Your task to perform on an android device: turn off smart reply in the gmail app Image 0: 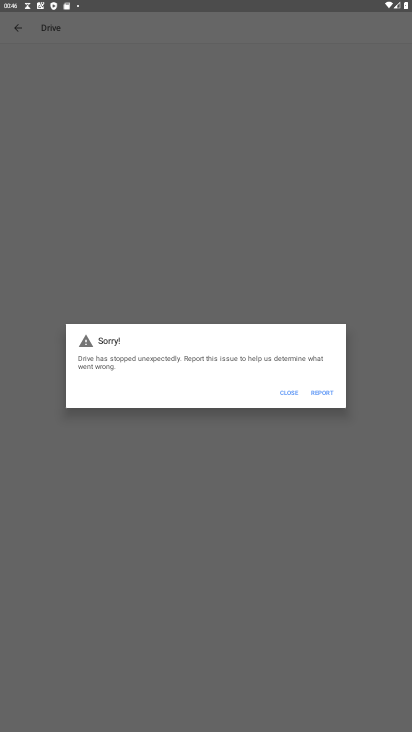
Step 0: press home button
Your task to perform on an android device: turn off smart reply in the gmail app Image 1: 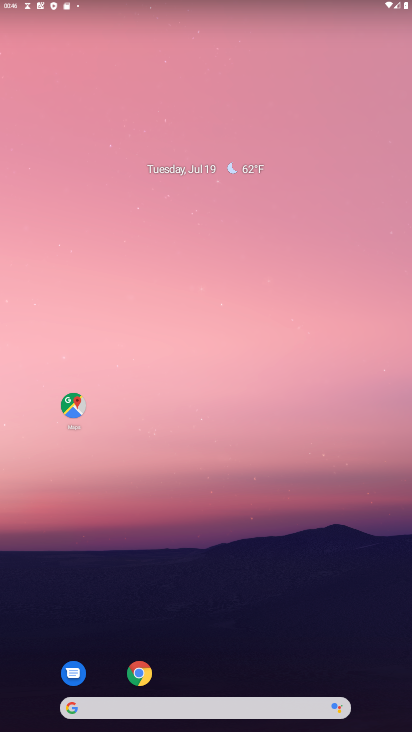
Step 1: drag from (272, 584) to (229, 171)
Your task to perform on an android device: turn off smart reply in the gmail app Image 2: 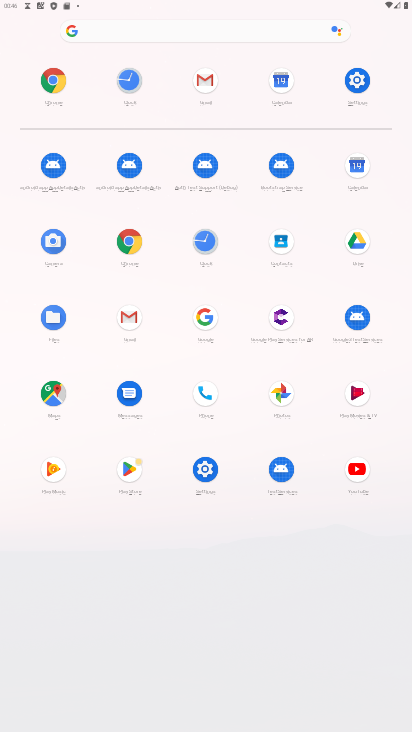
Step 2: click (209, 77)
Your task to perform on an android device: turn off smart reply in the gmail app Image 3: 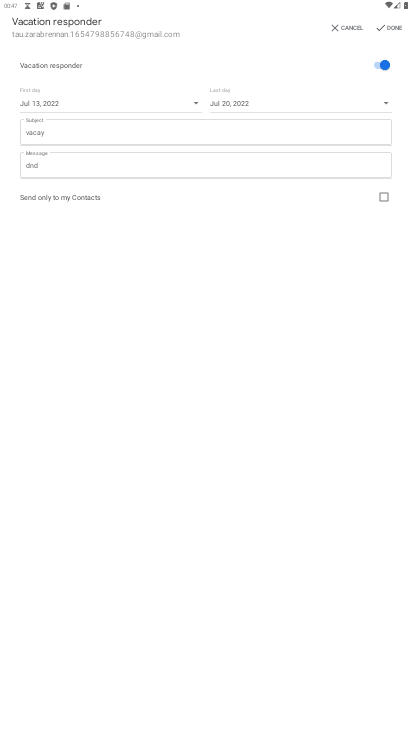
Step 3: click (338, 26)
Your task to perform on an android device: turn off smart reply in the gmail app Image 4: 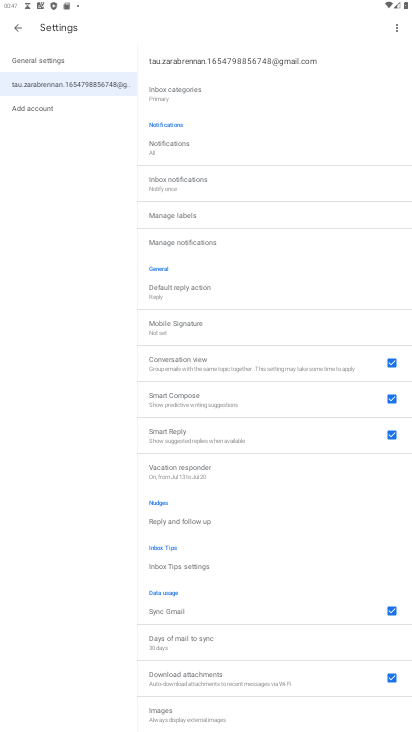
Step 4: click (397, 423)
Your task to perform on an android device: turn off smart reply in the gmail app Image 5: 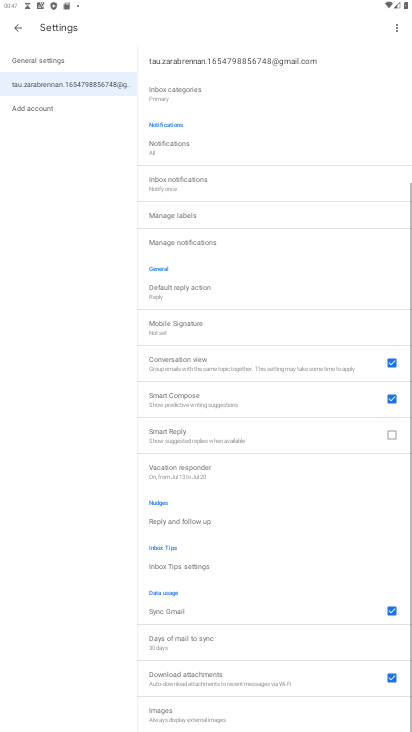
Step 5: task complete